Your task to perform on an android device: What is the capital of Switzerland? Image 0: 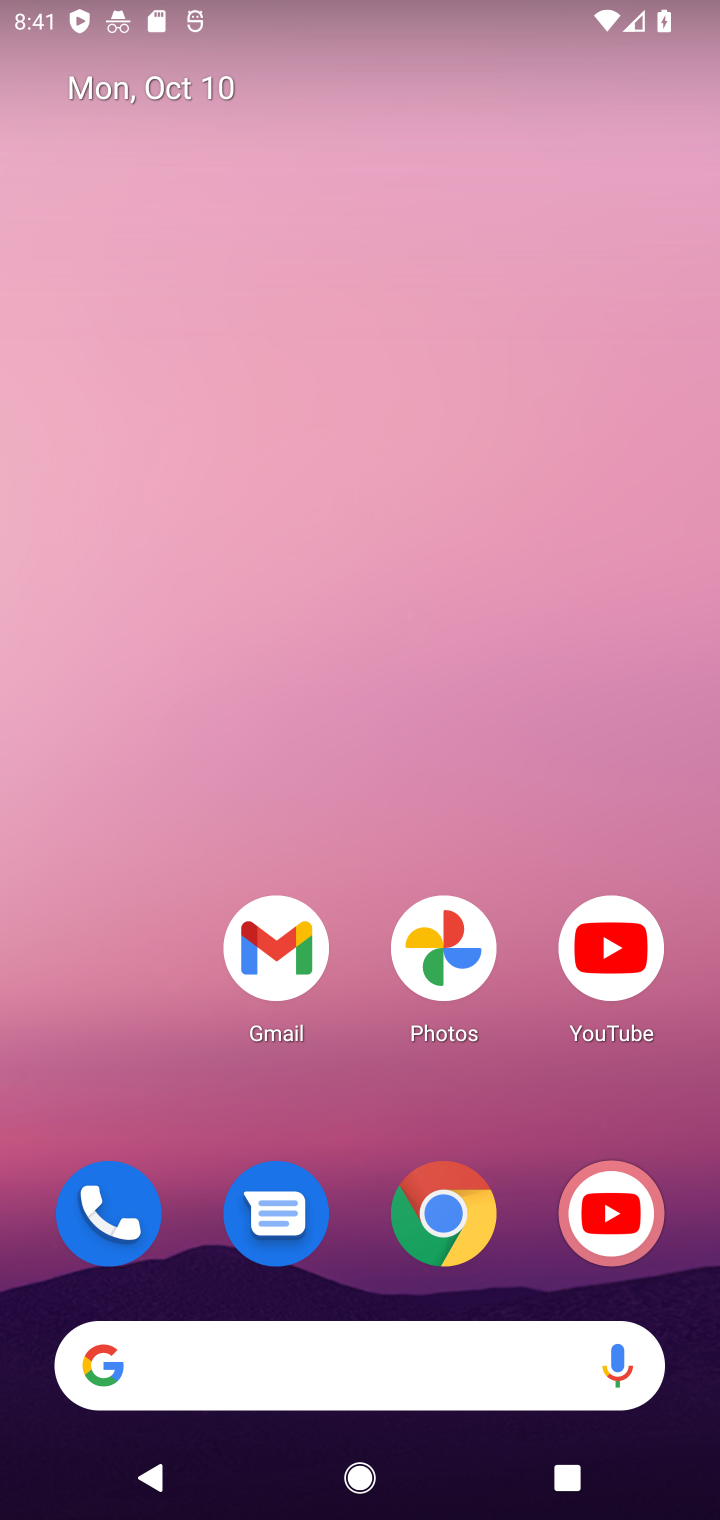
Step 0: click (232, 1366)
Your task to perform on an android device: What is the capital of Switzerland? Image 1: 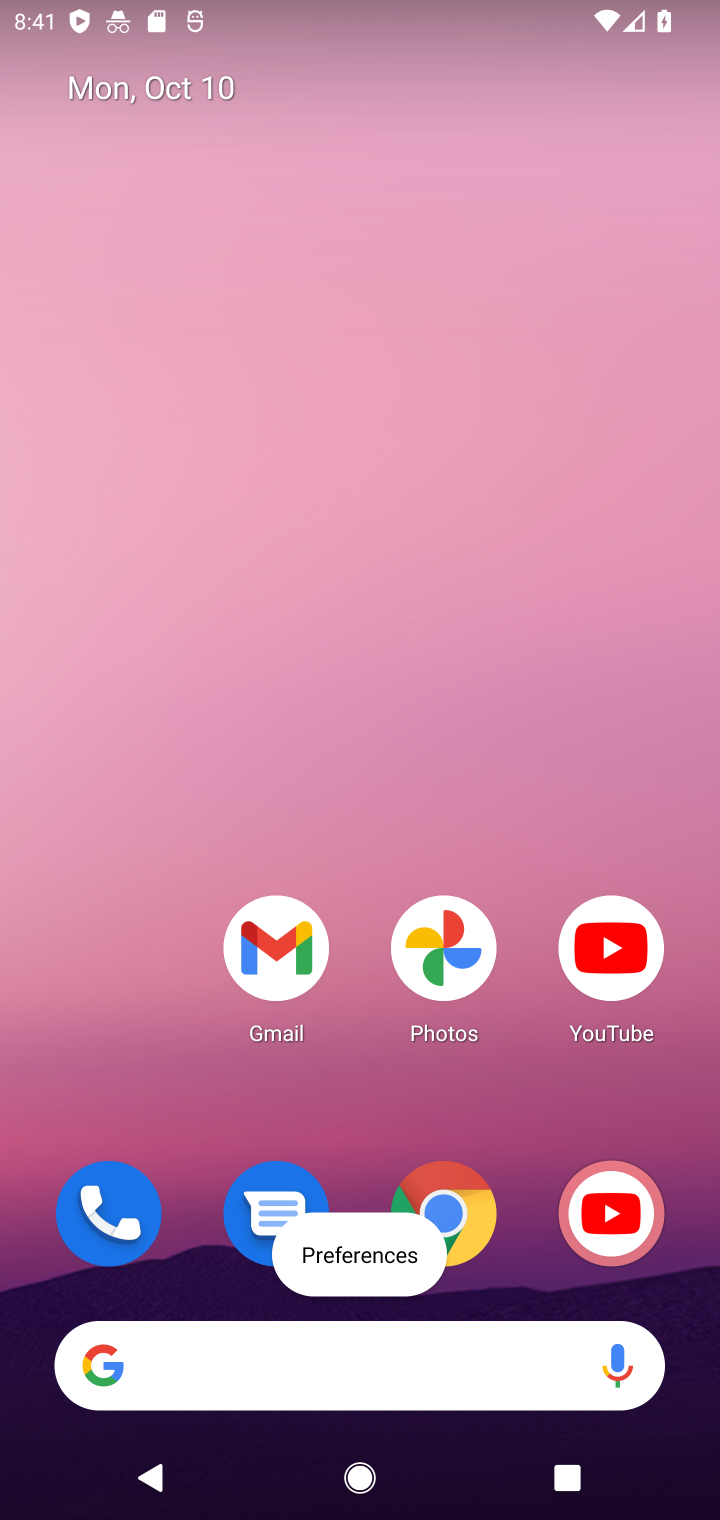
Step 1: click (273, 1368)
Your task to perform on an android device: What is the capital of Switzerland? Image 2: 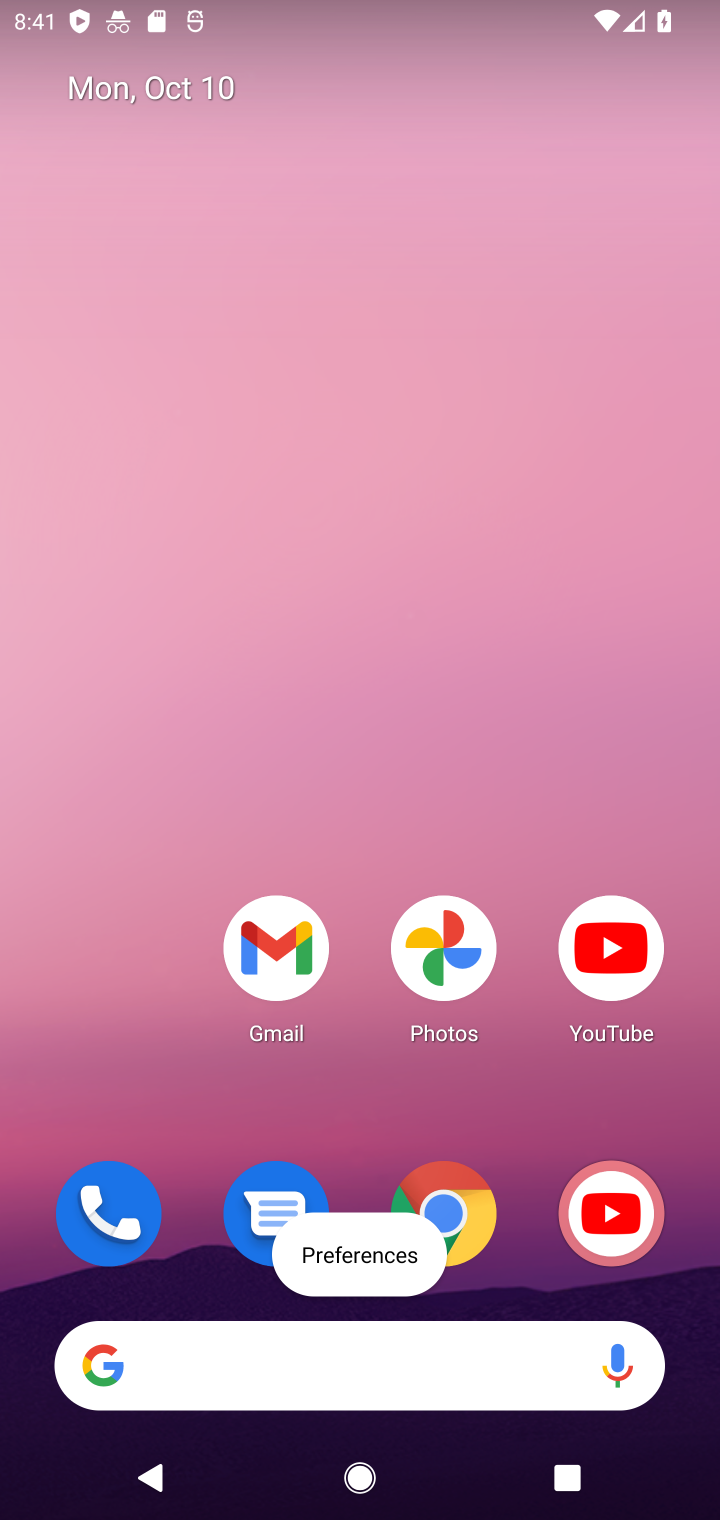
Step 2: click (314, 1368)
Your task to perform on an android device: What is the capital of Switzerland? Image 3: 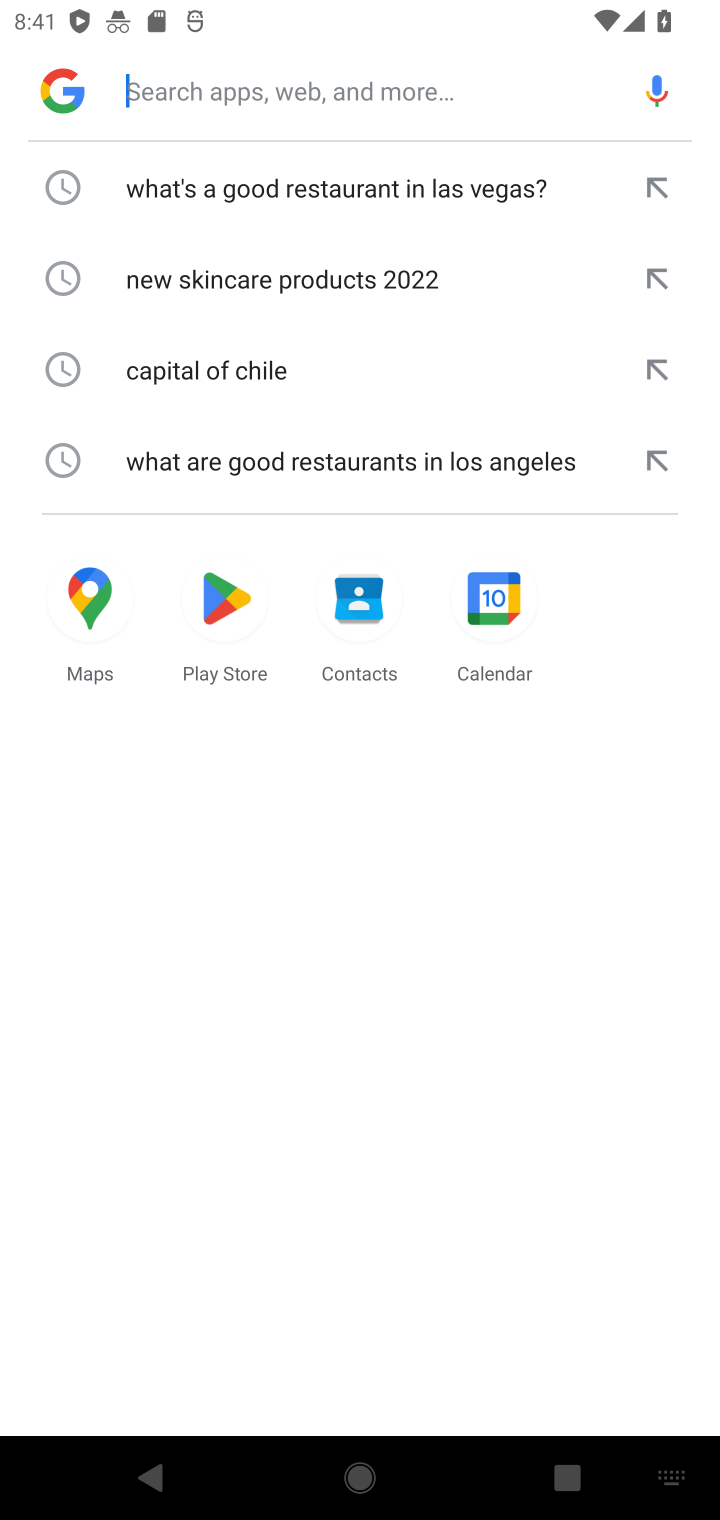
Step 3: click (189, 84)
Your task to perform on an android device: What is the capital of Switzerland? Image 4: 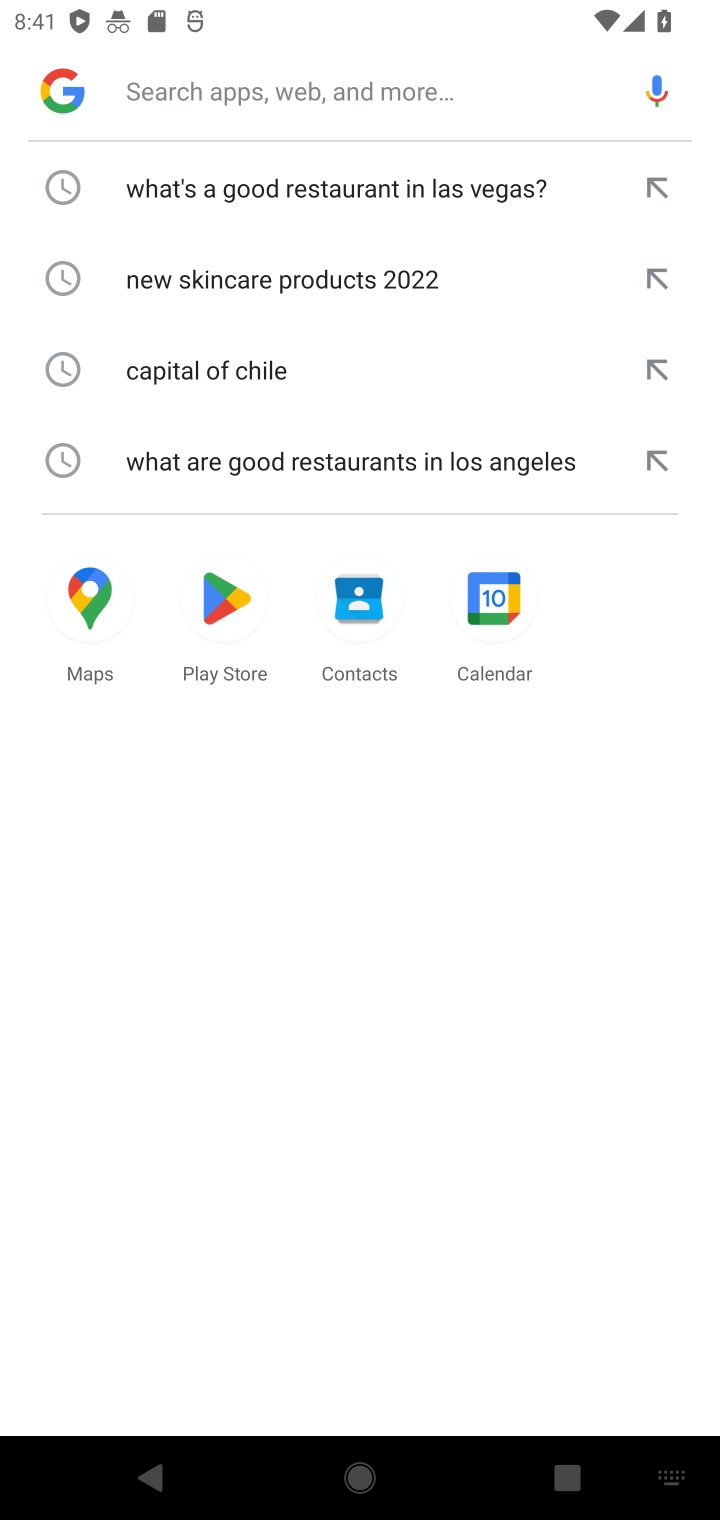
Step 4: type "What is the capital of Switzerland?"
Your task to perform on an android device: What is the capital of Switzerland? Image 5: 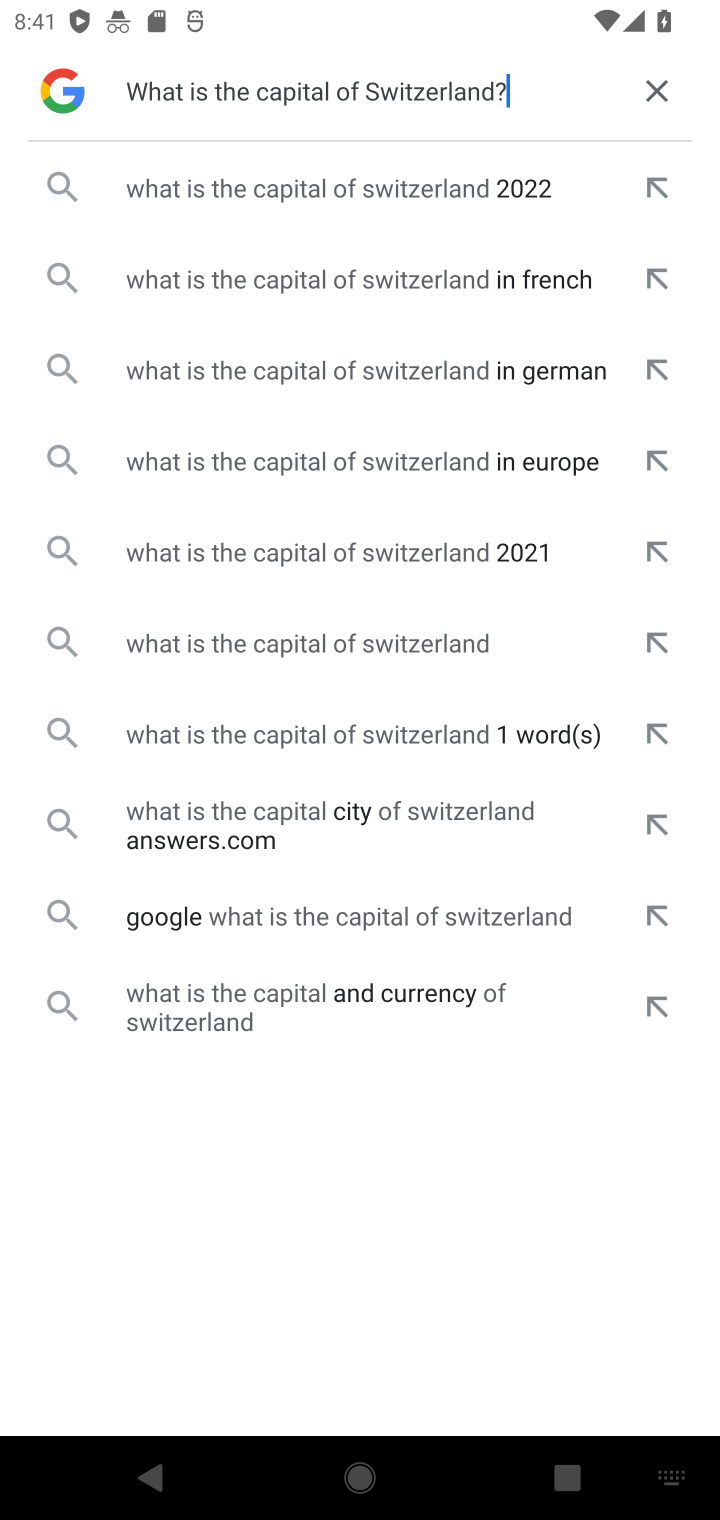
Step 5: click (341, 184)
Your task to perform on an android device: What is the capital of Switzerland? Image 6: 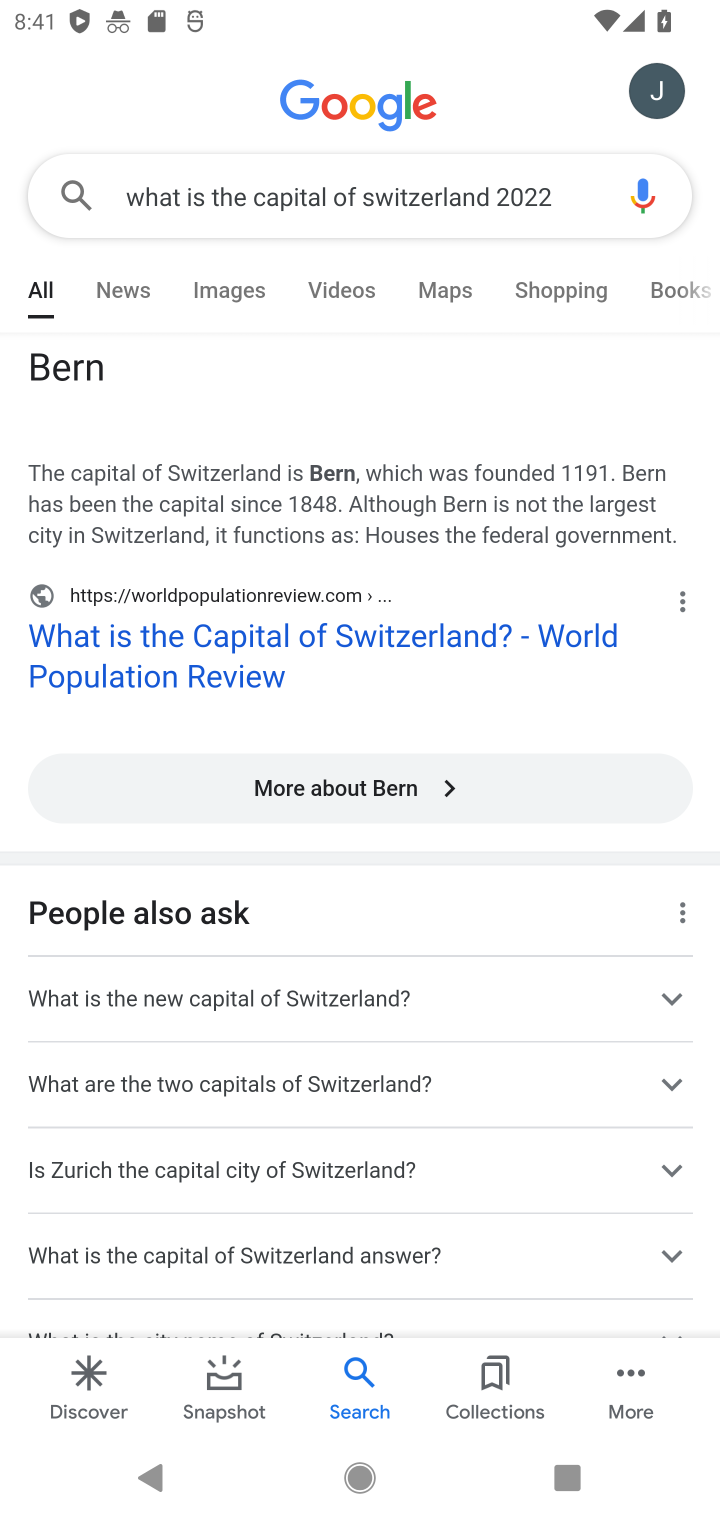
Step 6: task complete